Your task to perform on an android device: Show the shopping cart on amazon. Image 0: 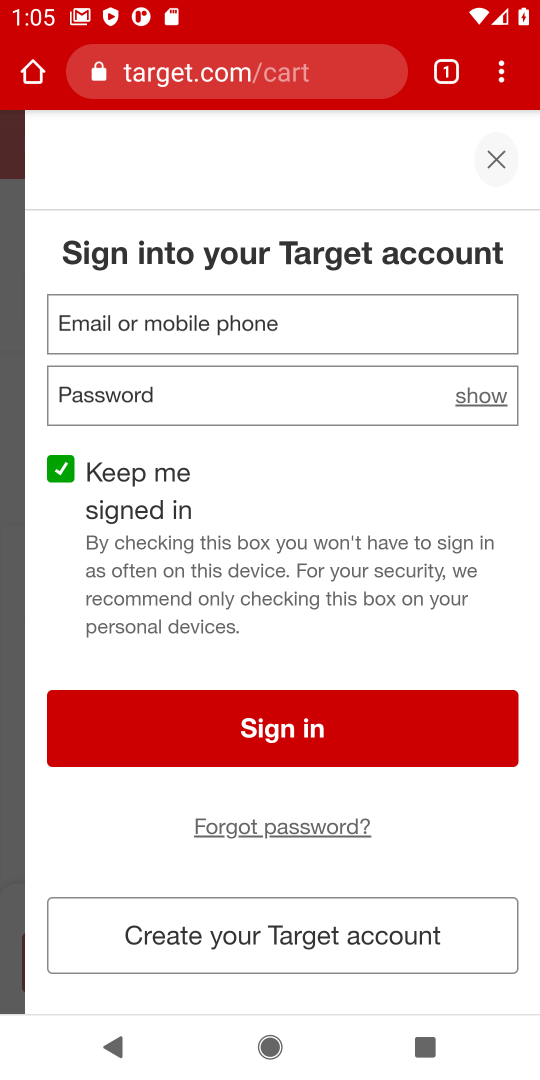
Step 0: press home button
Your task to perform on an android device: Show the shopping cart on amazon. Image 1: 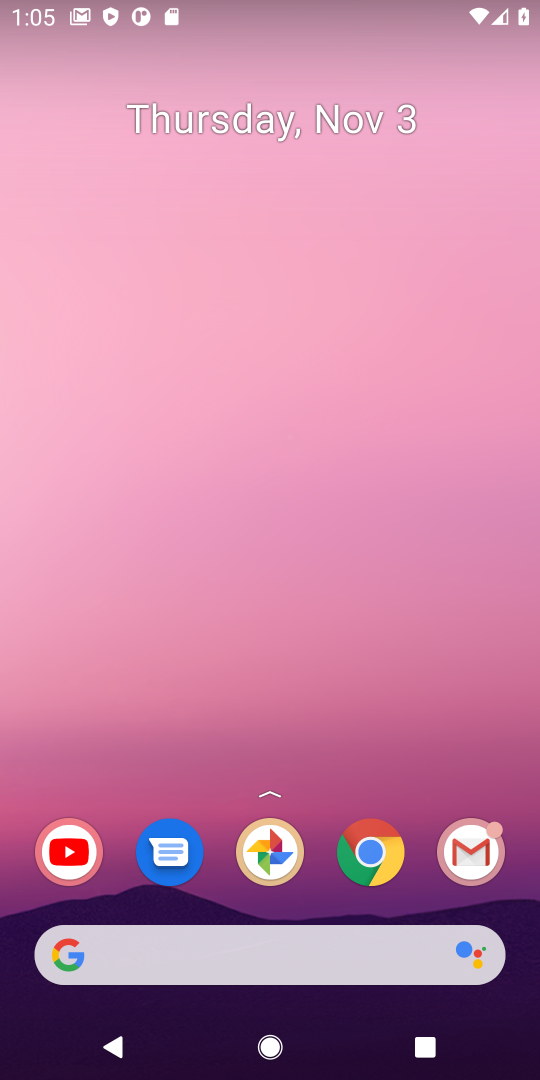
Step 1: click (381, 862)
Your task to perform on an android device: Show the shopping cart on amazon. Image 2: 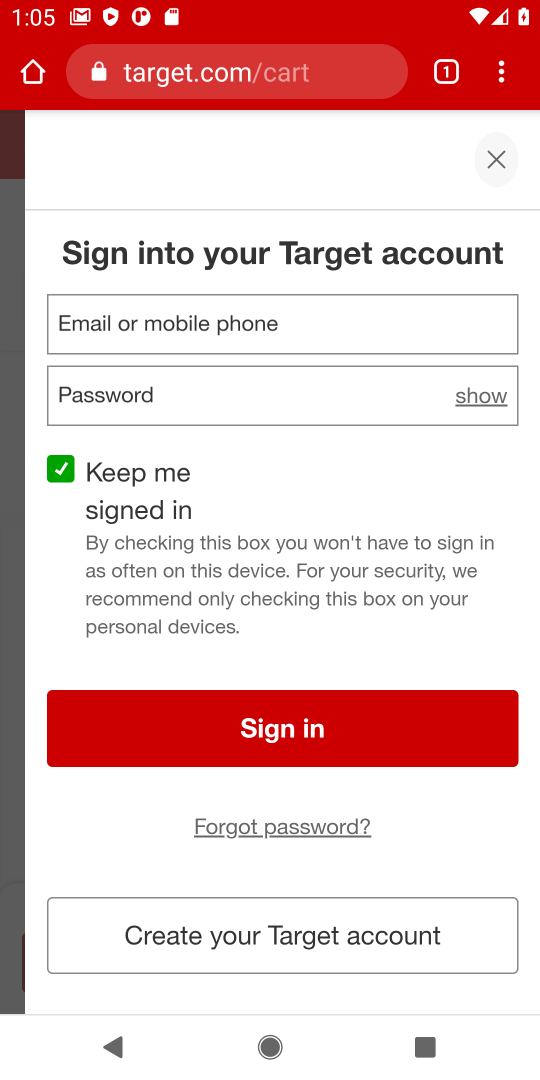
Step 2: click (206, 71)
Your task to perform on an android device: Show the shopping cart on amazon. Image 3: 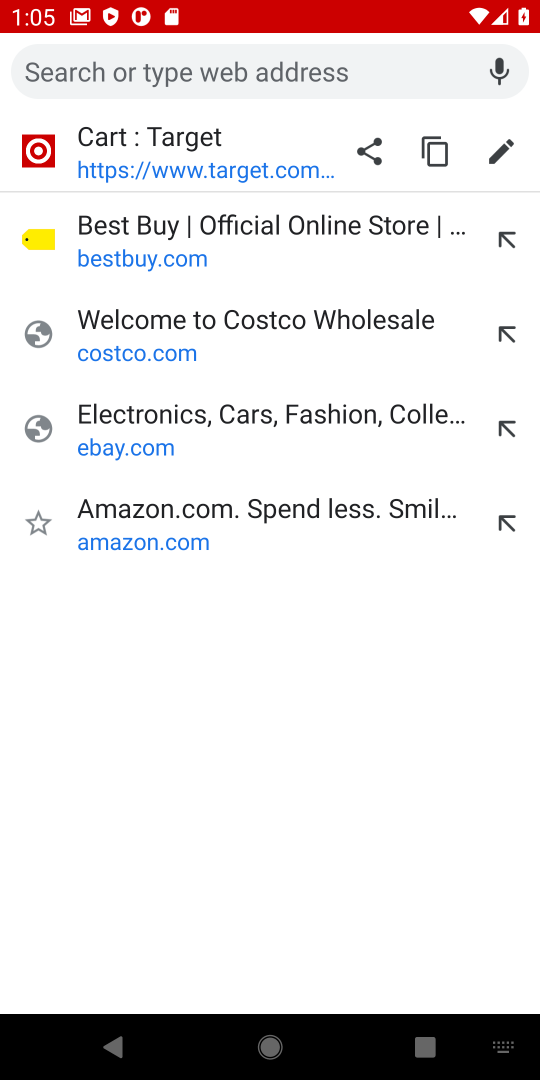
Step 3: click (160, 534)
Your task to perform on an android device: Show the shopping cart on amazon. Image 4: 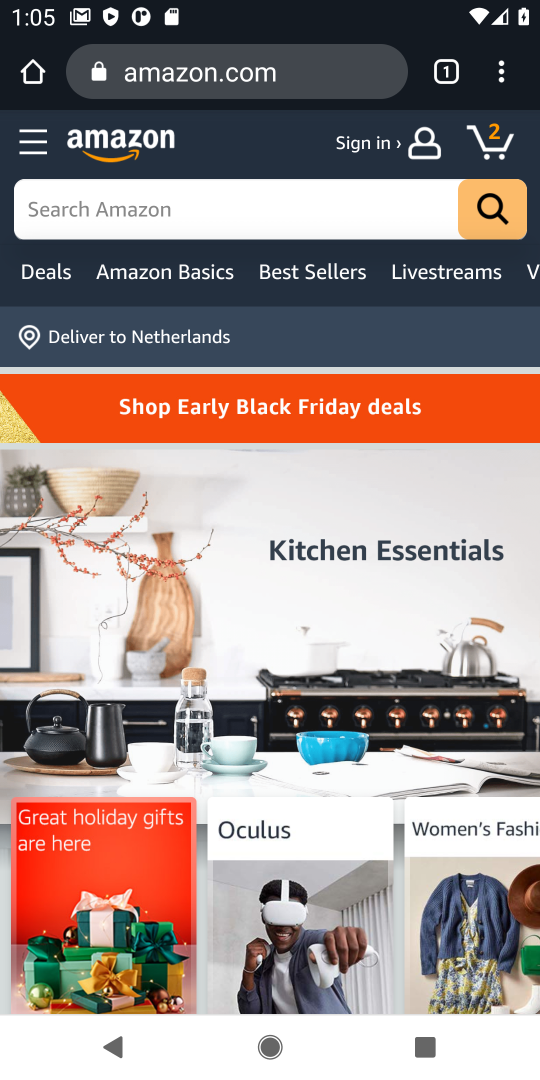
Step 4: click (493, 154)
Your task to perform on an android device: Show the shopping cart on amazon. Image 5: 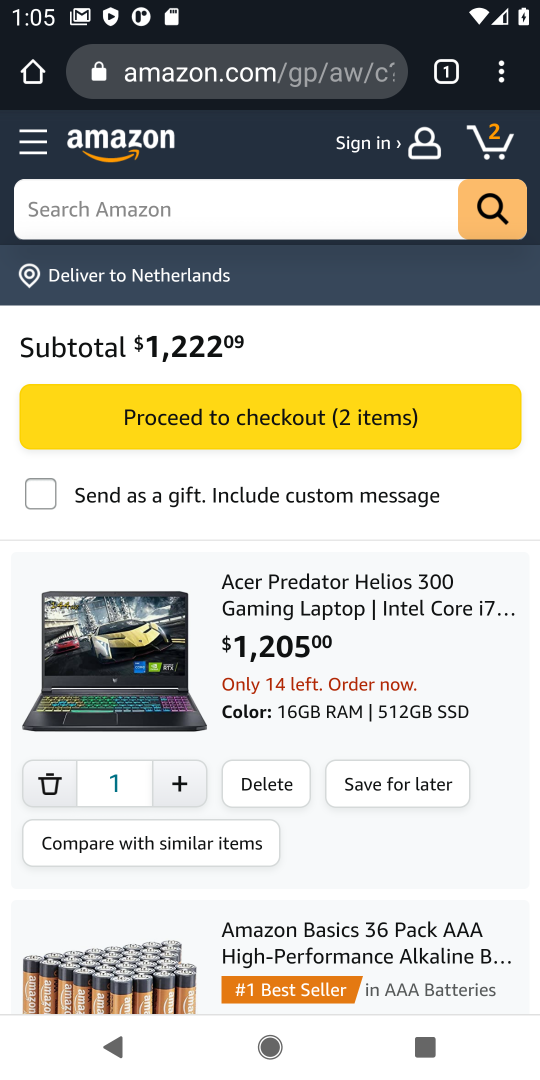
Step 5: task complete